Your task to perform on an android device: Go to Google Image 0: 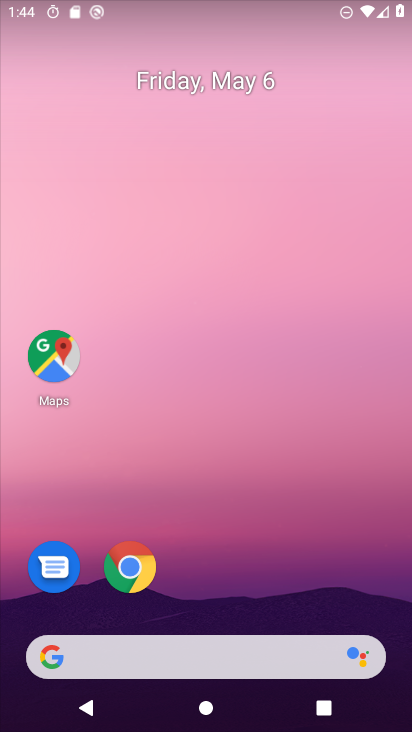
Step 0: drag from (293, 669) to (264, 170)
Your task to perform on an android device: Go to Google Image 1: 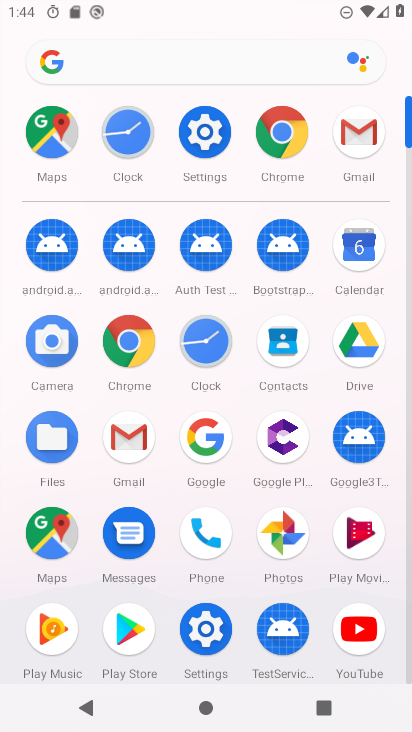
Step 1: click (82, 71)
Your task to perform on an android device: Go to Google Image 2: 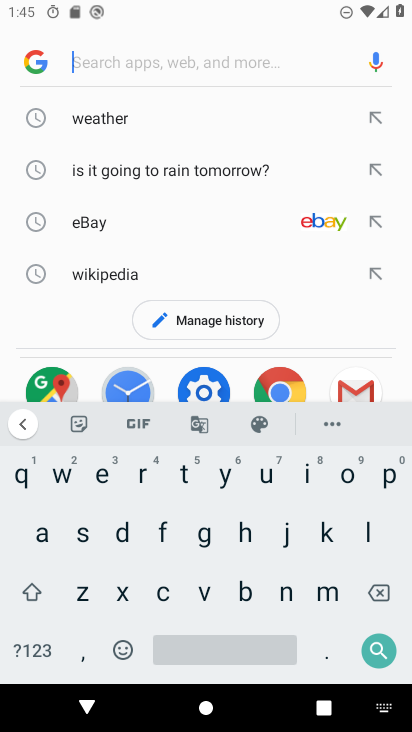
Step 2: click (28, 56)
Your task to perform on an android device: Go to Google Image 3: 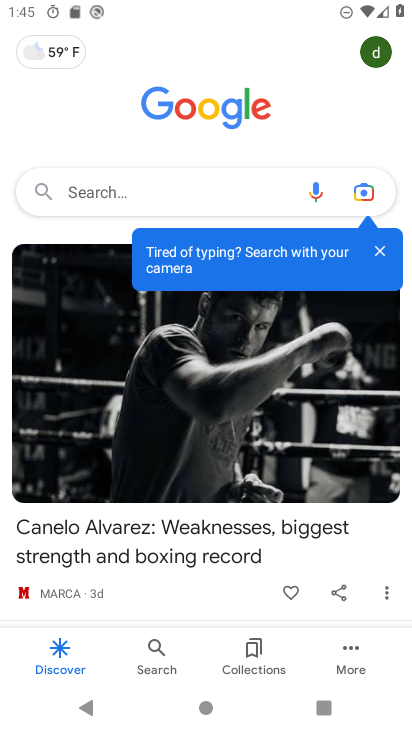
Step 3: task complete